Your task to perform on an android device: Open display settings Image 0: 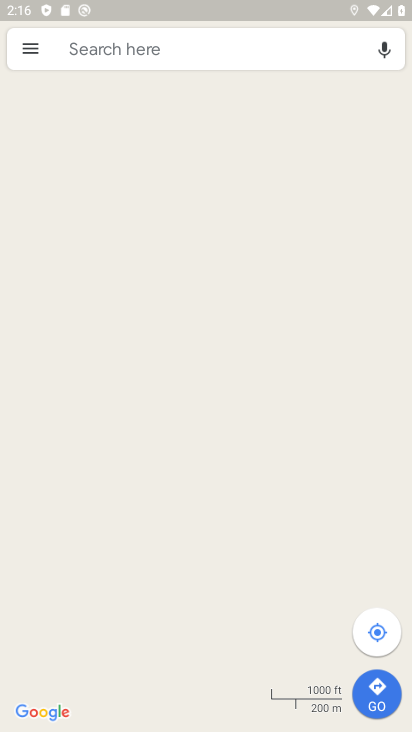
Step 0: press home button
Your task to perform on an android device: Open display settings Image 1: 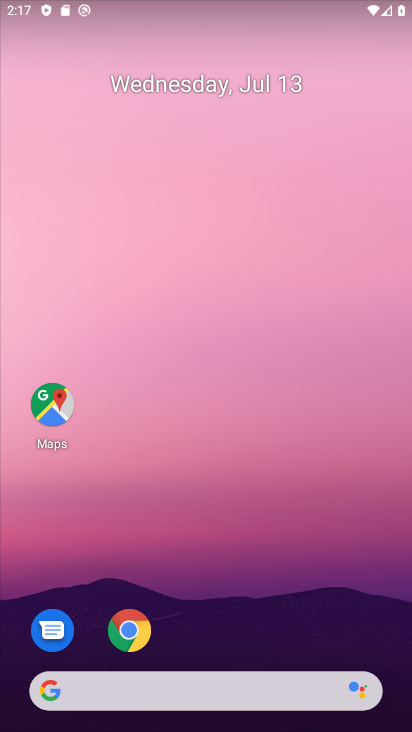
Step 1: drag from (250, 627) to (175, 106)
Your task to perform on an android device: Open display settings Image 2: 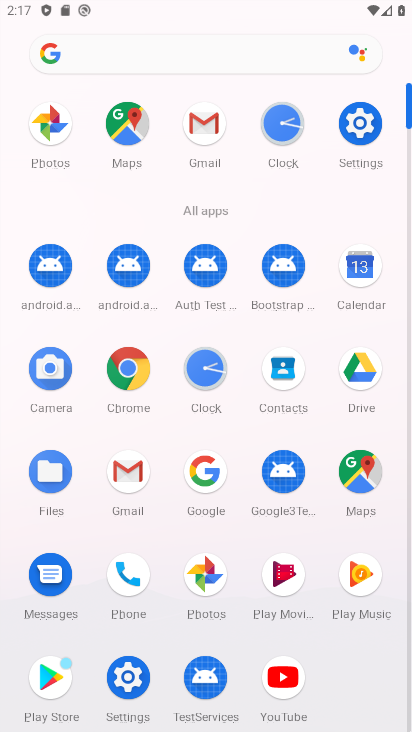
Step 2: click (363, 120)
Your task to perform on an android device: Open display settings Image 3: 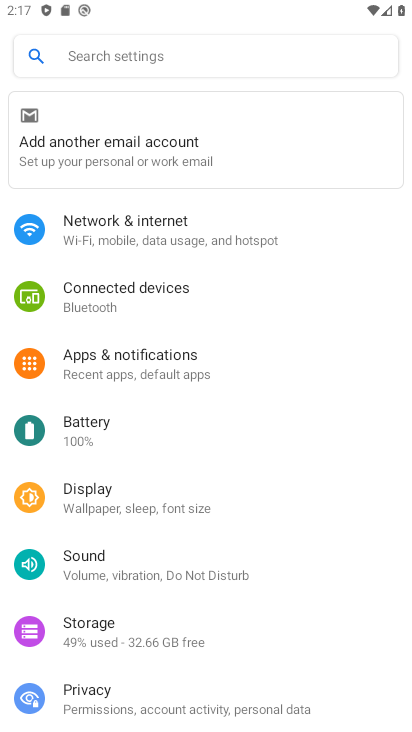
Step 3: click (203, 500)
Your task to perform on an android device: Open display settings Image 4: 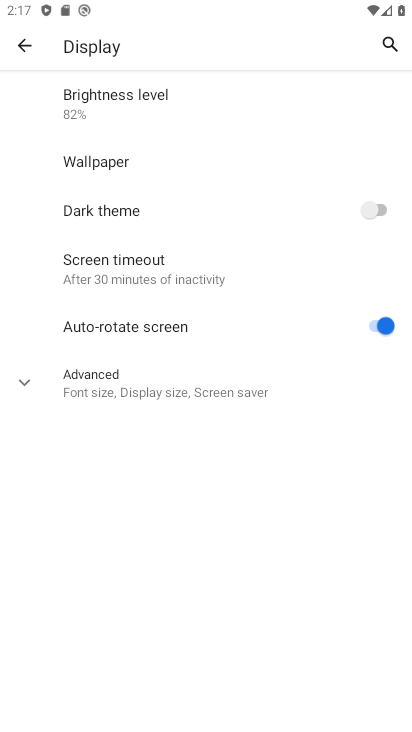
Step 4: task complete